Your task to perform on an android device: Open Chrome and go to settings Image 0: 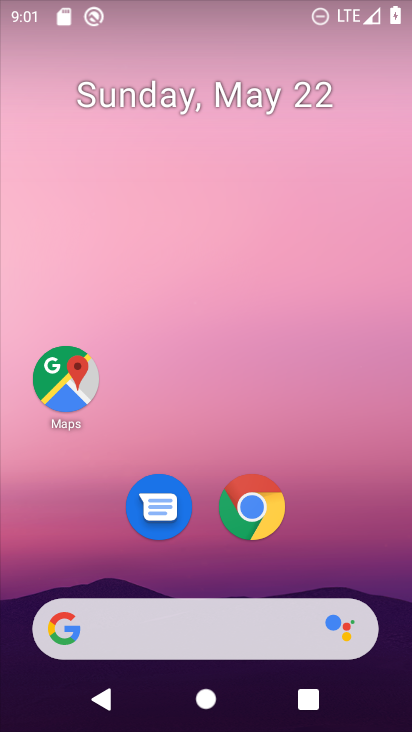
Step 0: click (261, 509)
Your task to perform on an android device: Open Chrome and go to settings Image 1: 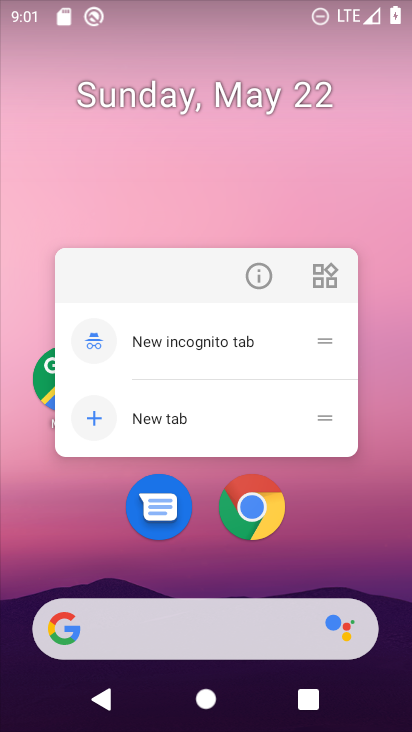
Step 1: click (261, 509)
Your task to perform on an android device: Open Chrome and go to settings Image 2: 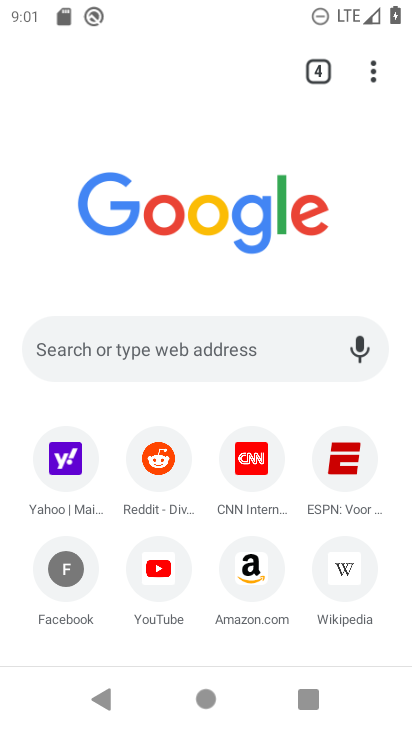
Step 2: click (373, 64)
Your task to perform on an android device: Open Chrome and go to settings Image 3: 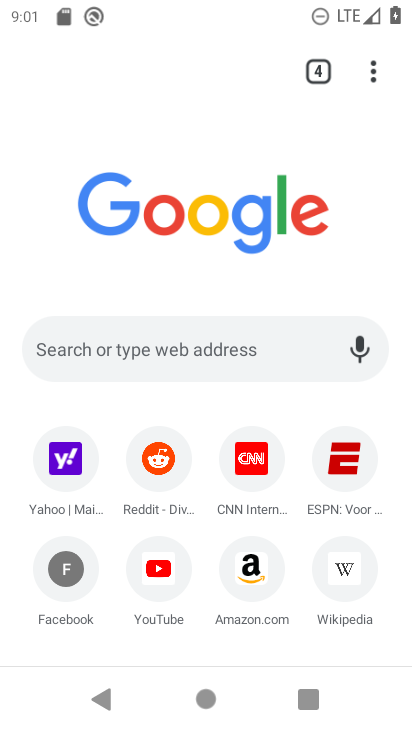
Step 3: click (375, 76)
Your task to perform on an android device: Open Chrome and go to settings Image 4: 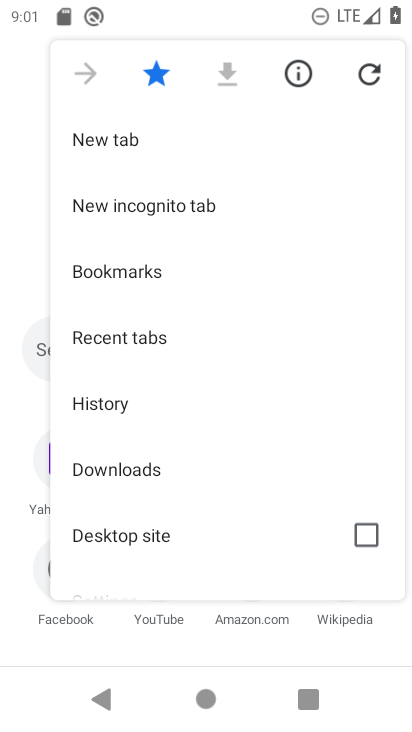
Step 4: drag from (201, 483) to (214, 93)
Your task to perform on an android device: Open Chrome and go to settings Image 5: 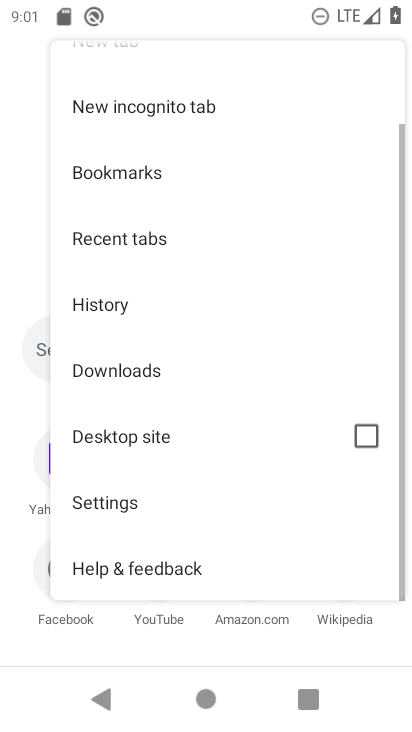
Step 5: click (145, 501)
Your task to perform on an android device: Open Chrome and go to settings Image 6: 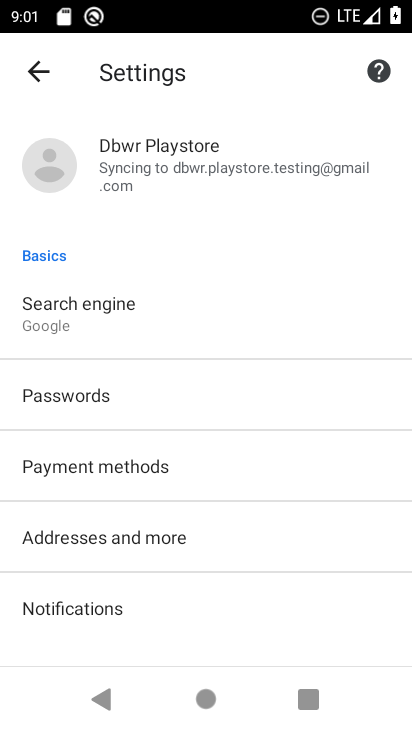
Step 6: task complete